Your task to perform on an android device: turn pop-ups off in chrome Image 0: 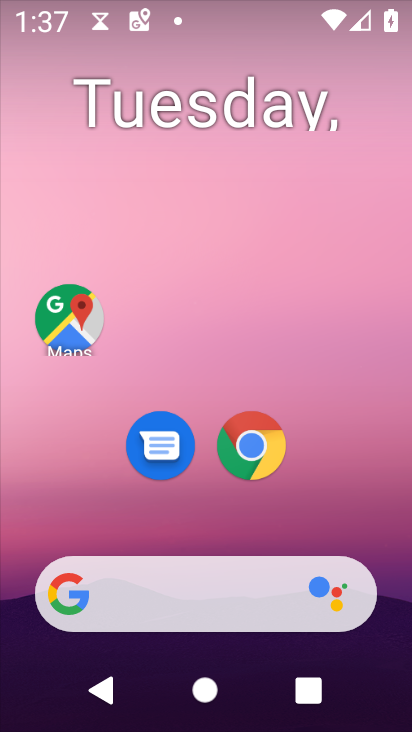
Step 0: drag from (280, 592) to (345, 1)
Your task to perform on an android device: turn pop-ups off in chrome Image 1: 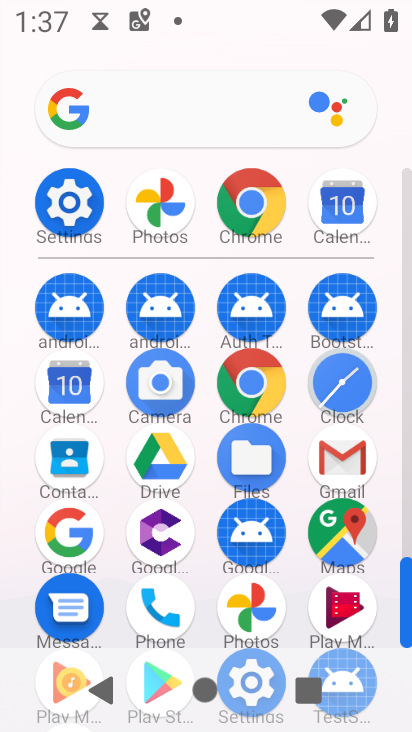
Step 1: click (261, 391)
Your task to perform on an android device: turn pop-ups off in chrome Image 2: 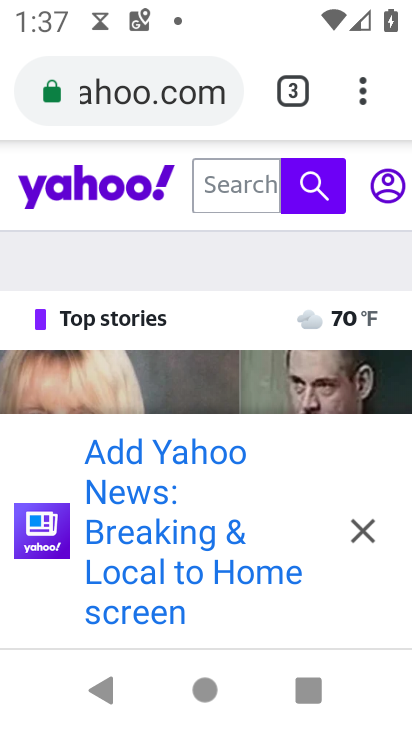
Step 2: drag from (370, 85) to (209, 499)
Your task to perform on an android device: turn pop-ups off in chrome Image 3: 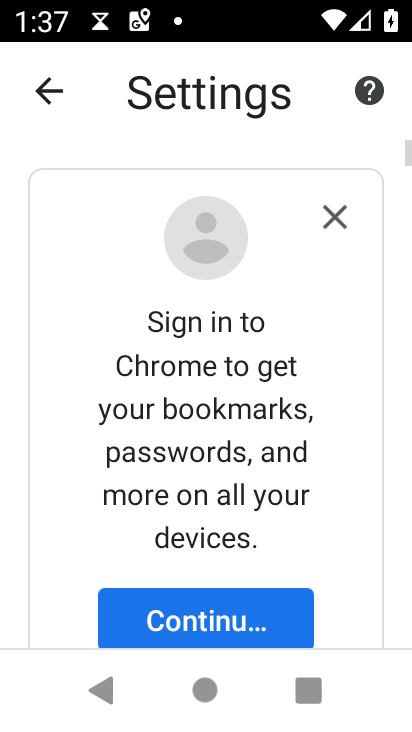
Step 3: drag from (358, 573) to (386, 5)
Your task to perform on an android device: turn pop-ups off in chrome Image 4: 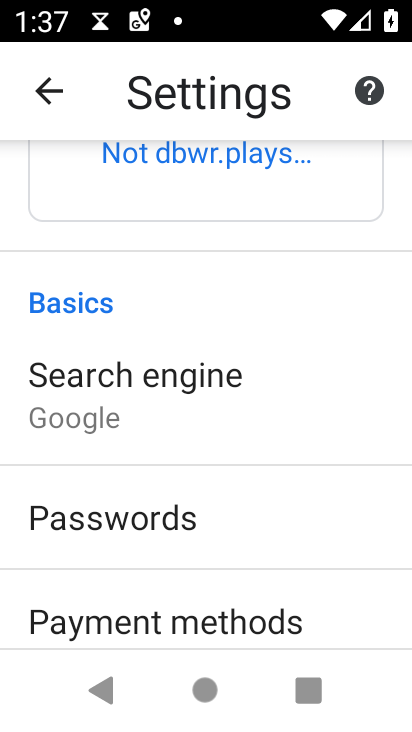
Step 4: drag from (240, 589) to (293, 44)
Your task to perform on an android device: turn pop-ups off in chrome Image 5: 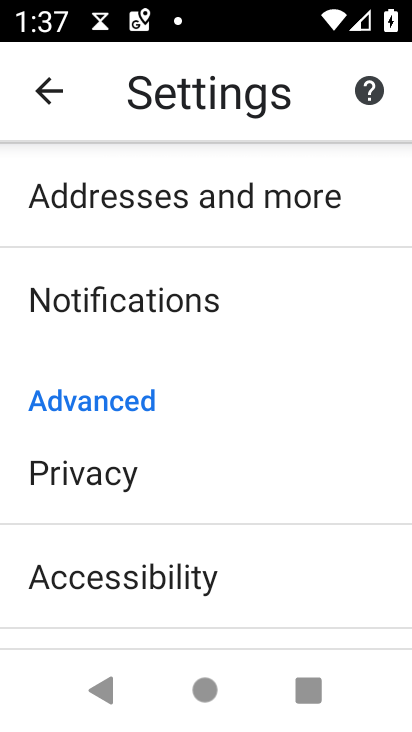
Step 5: drag from (225, 649) to (223, 300)
Your task to perform on an android device: turn pop-ups off in chrome Image 6: 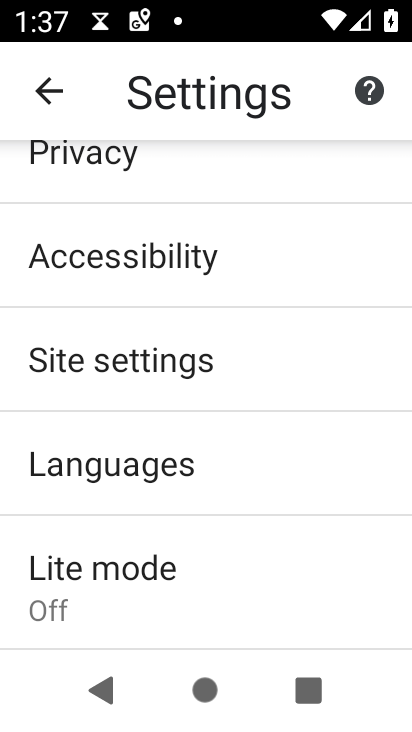
Step 6: click (182, 367)
Your task to perform on an android device: turn pop-ups off in chrome Image 7: 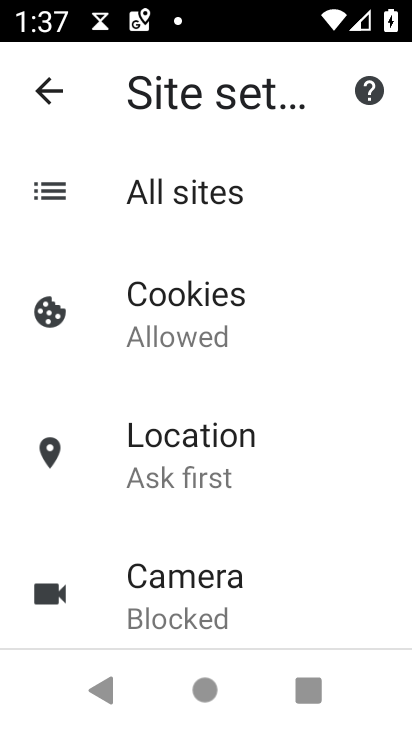
Step 7: drag from (293, 608) to (318, 168)
Your task to perform on an android device: turn pop-ups off in chrome Image 8: 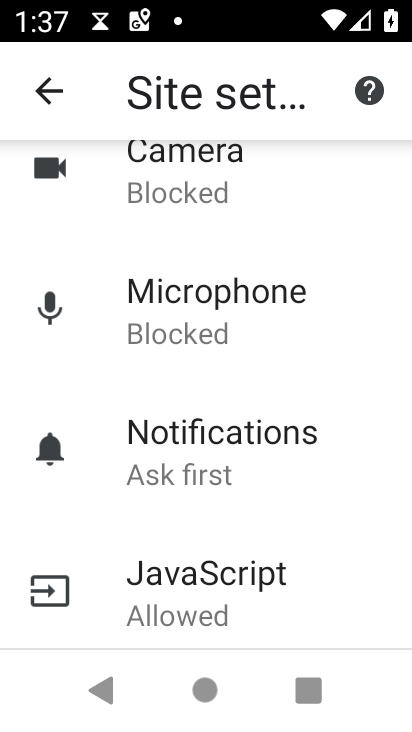
Step 8: drag from (288, 578) to (277, 140)
Your task to perform on an android device: turn pop-ups off in chrome Image 9: 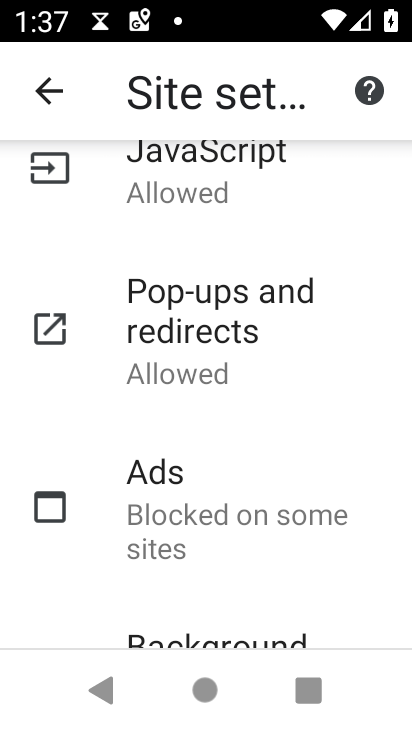
Step 9: click (238, 313)
Your task to perform on an android device: turn pop-ups off in chrome Image 10: 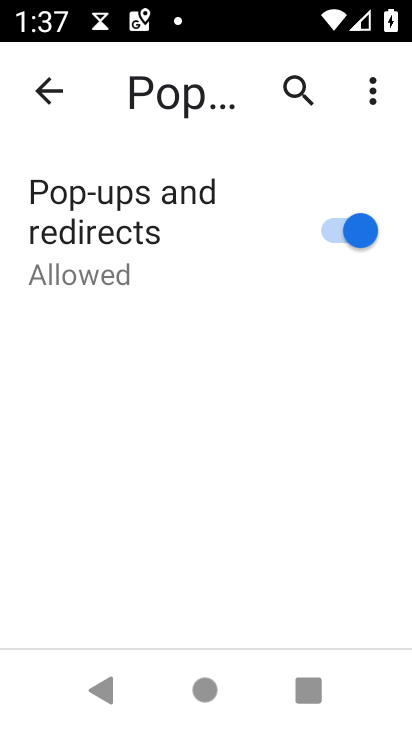
Step 10: click (334, 234)
Your task to perform on an android device: turn pop-ups off in chrome Image 11: 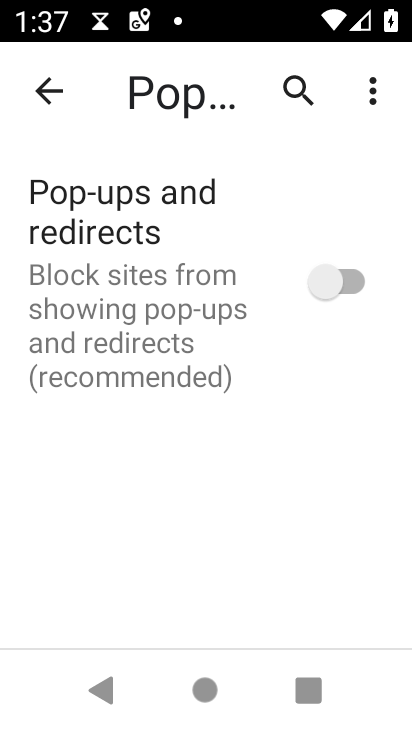
Step 11: task complete